Your task to perform on an android device: toggle pop-ups in chrome Image 0: 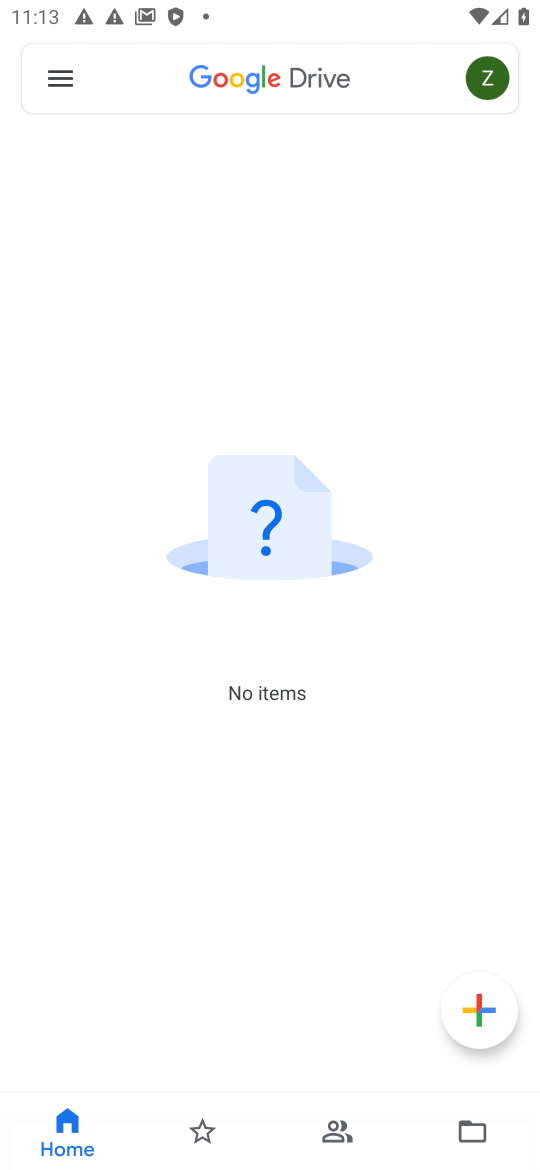
Step 0: press home button
Your task to perform on an android device: toggle pop-ups in chrome Image 1: 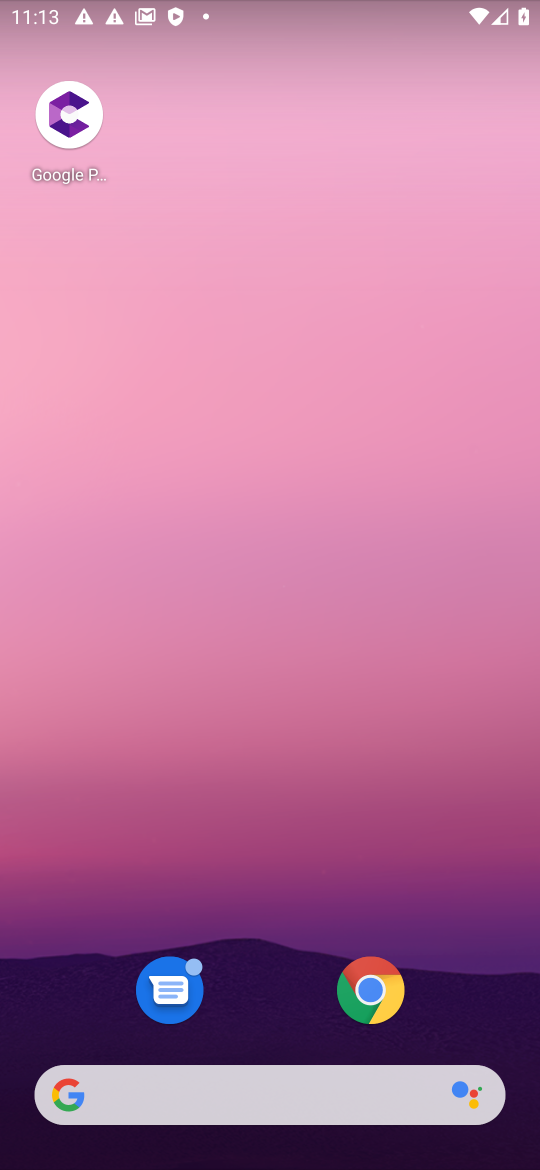
Step 1: click (362, 981)
Your task to perform on an android device: toggle pop-ups in chrome Image 2: 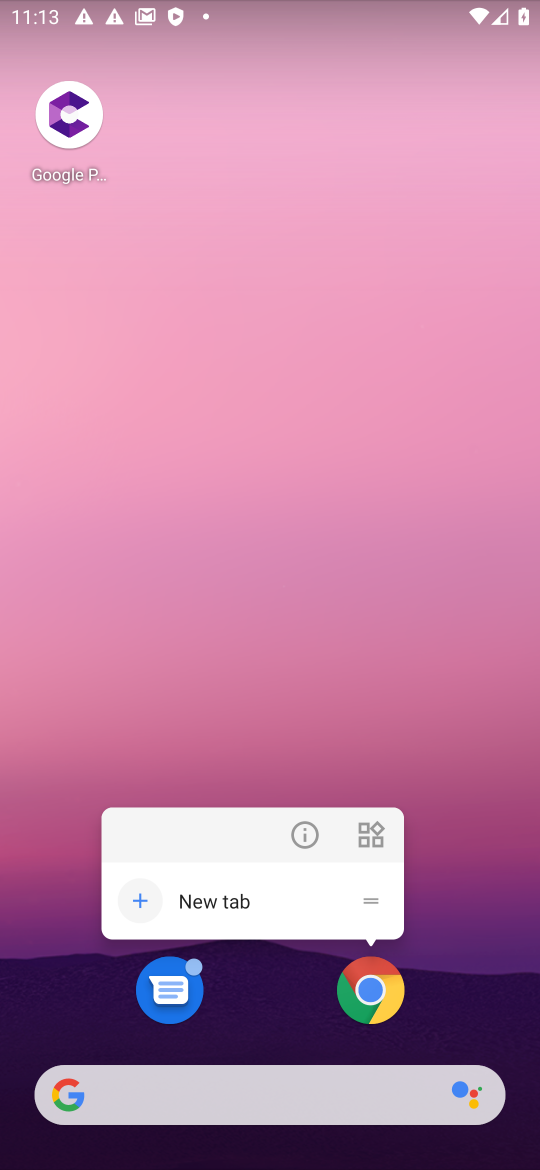
Step 2: click (362, 1019)
Your task to perform on an android device: toggle pop-ups in chrome Image 3: 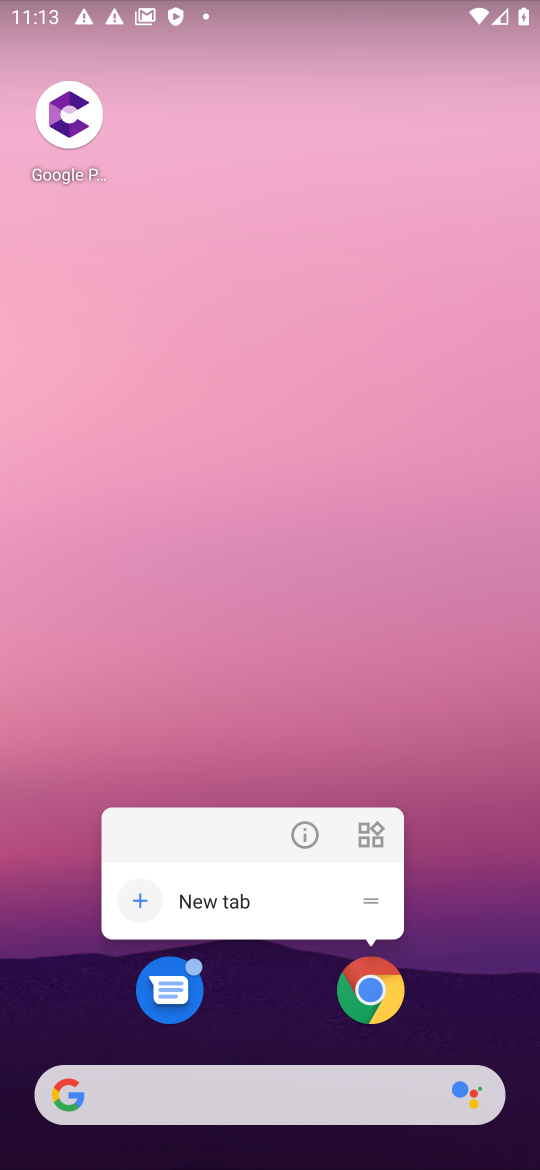
Step 3: click (350, 997)
Your task to perform on an android device: toggle pop-ups in chrome Image 4: 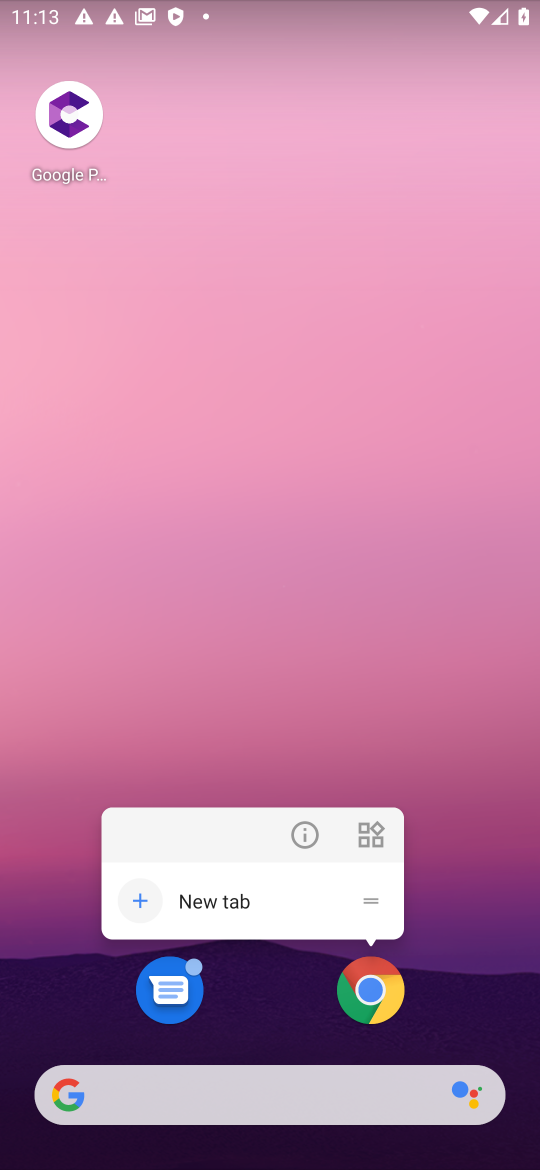
Step 4: click (353, 994)
Your task to perform on an android device: toggle pop-ups in chrome Image 5: 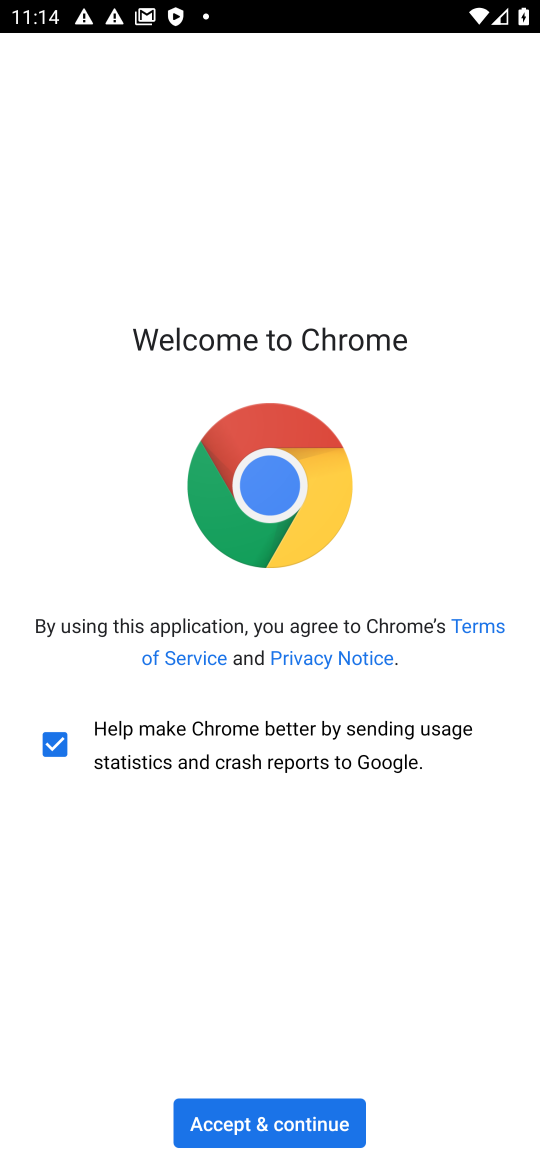
Step 5: click (337, 1115)
Your task to perform on an android device: toggle pop-ups in chrome Image 6: 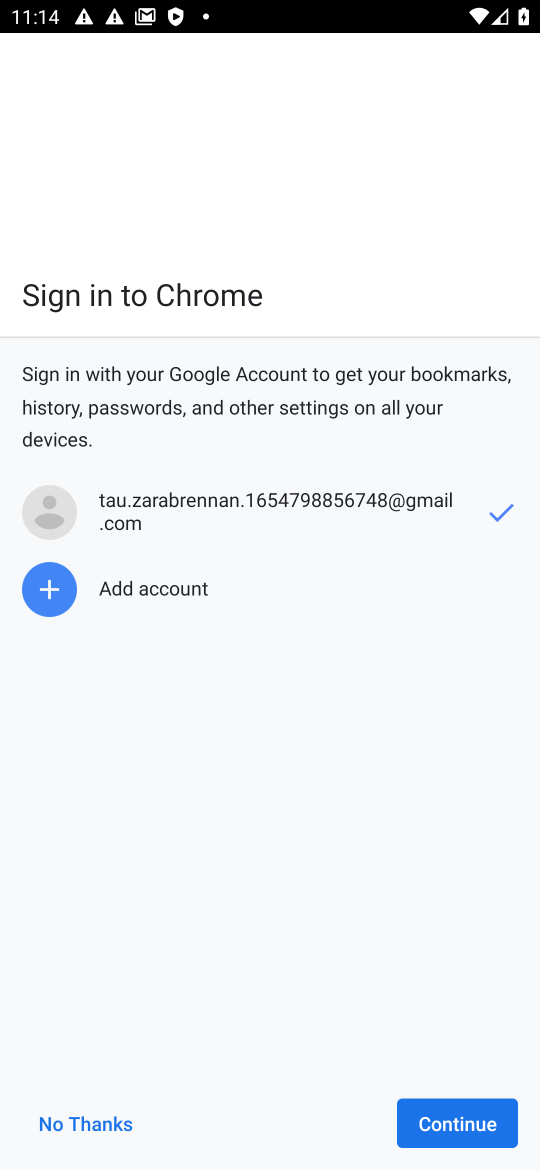
Step 6: click (458, 1118)
Your task to perform on an android device: toggle pop-ups in chrome Image 7: 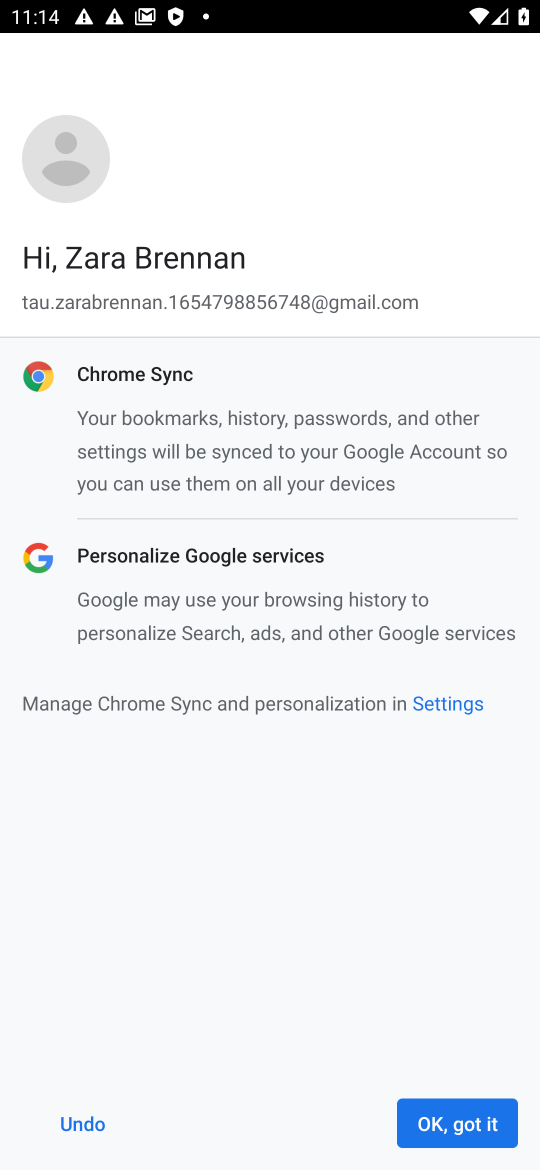
Step 7: click (456, 1124)
Your task to perform on an android device: toggle pop-ups in chrome Image 8: 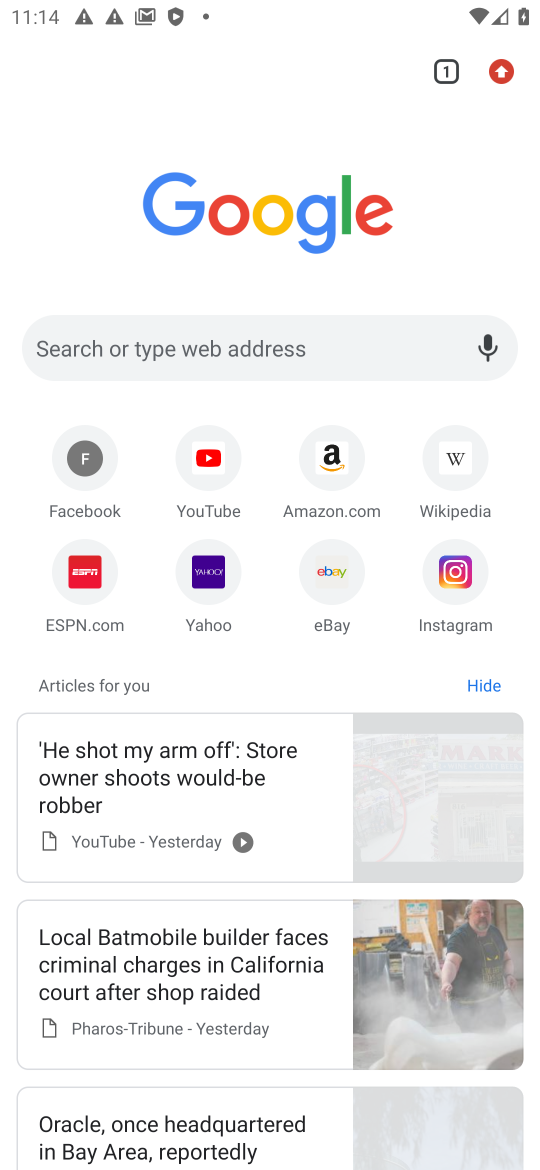
Step 8: click (511, 81)
Your task to perform on an android device: toggle pop-ups in chrome Image 9: 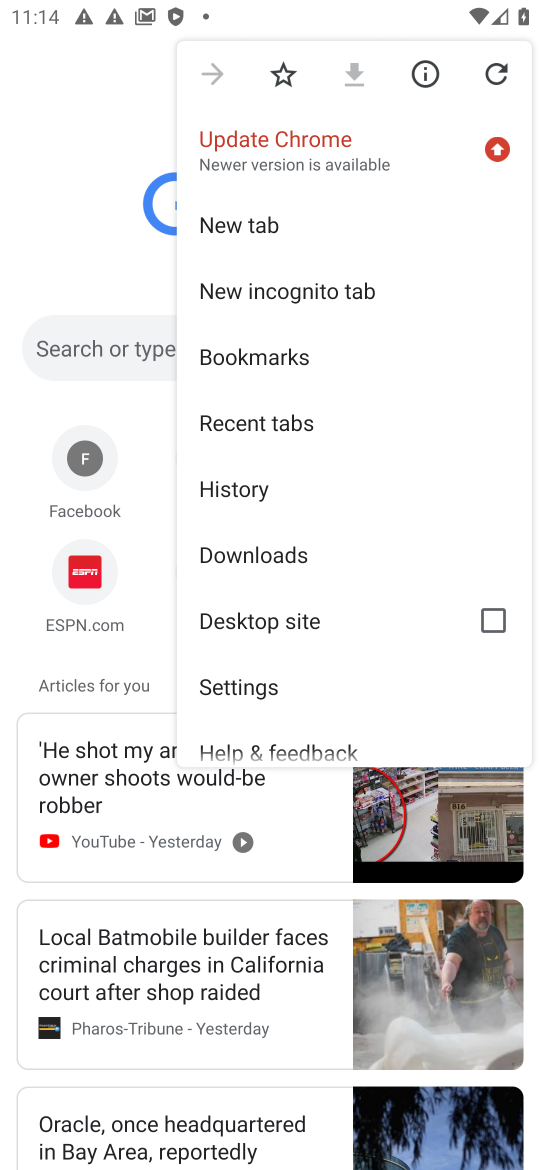
Step 9: click (251, 694)
Your task to perform on an android device: toggle pop-ups in chrome Image 10: 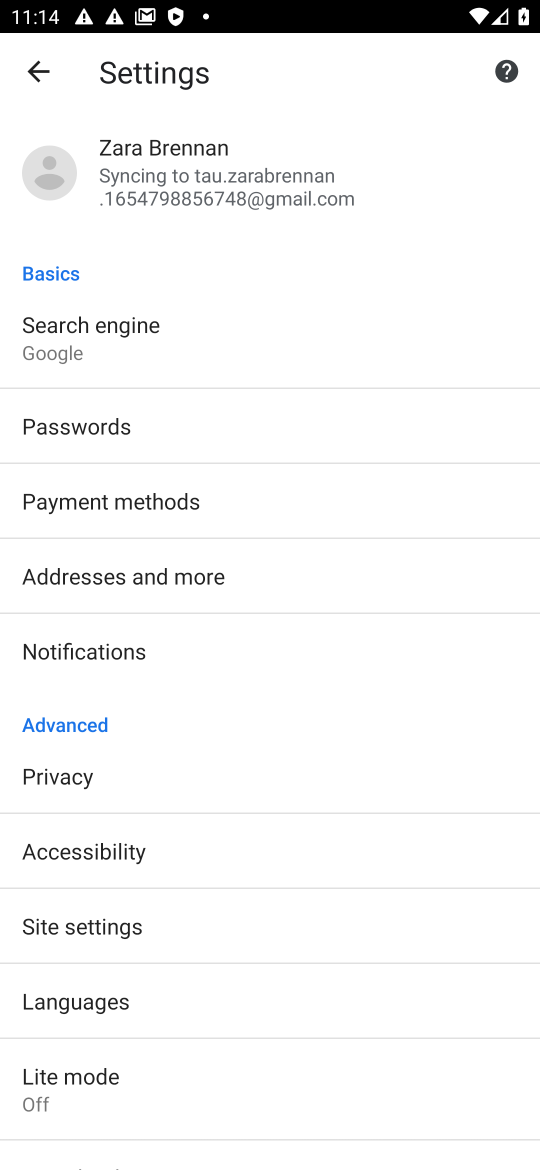
Step 10: click (144, 932)
Your task to perform on an android device: toggle pop-ups in chrome Image 11: 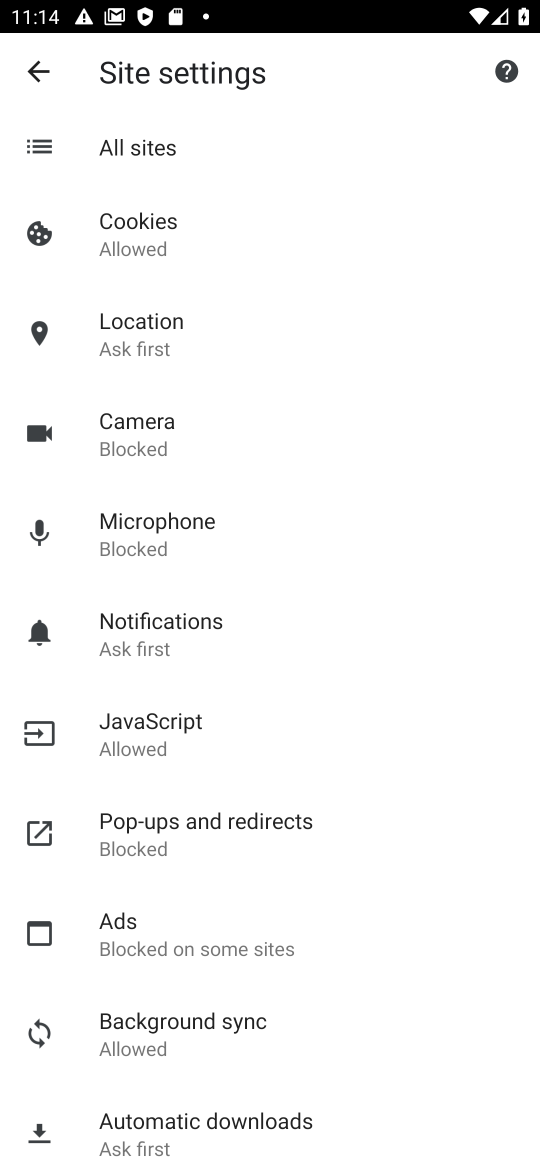
Step 11: click (212, 830)
Your task to perform on an android device: toggle pop-ups in chrome Image 12: 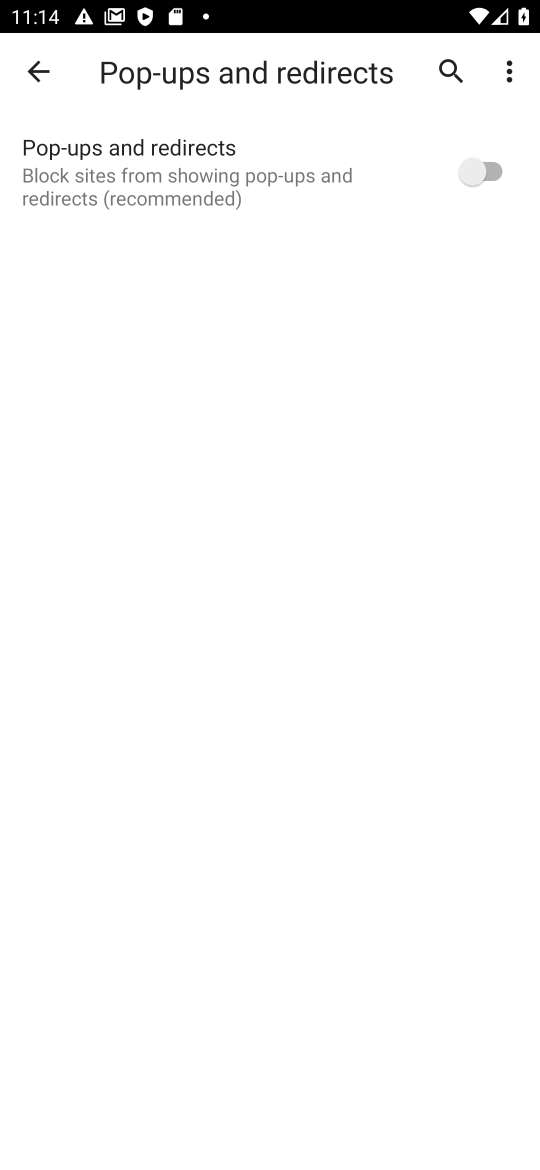
Step 12: click (391, 157)
Your task to perform on an android device: toggle pop-ups in chrome Image 13: 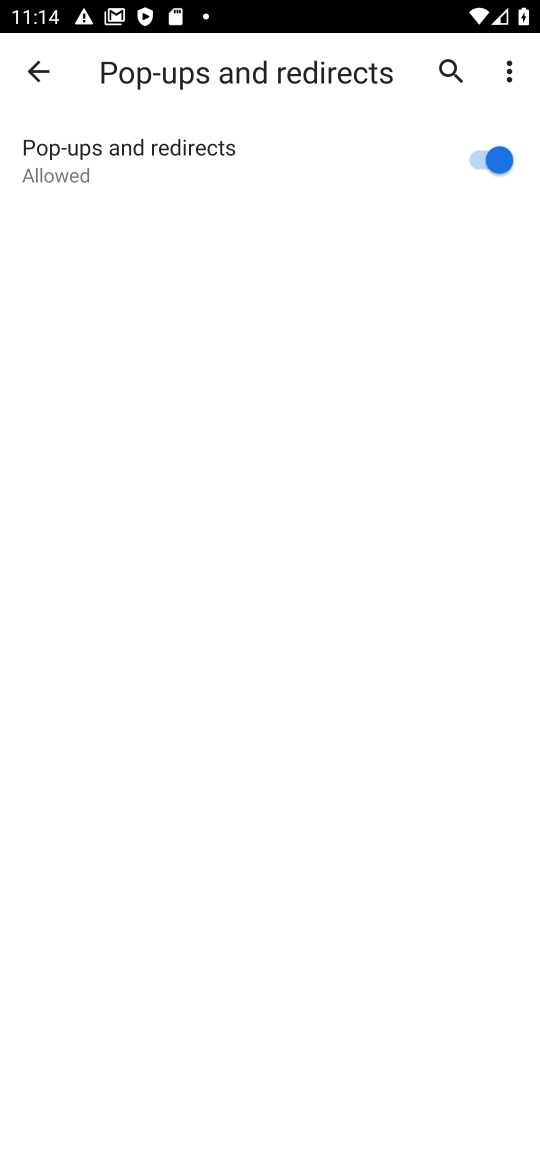
Step 13: task complete